Your task to perform on an android device: star an email in the gmail app Image 0: 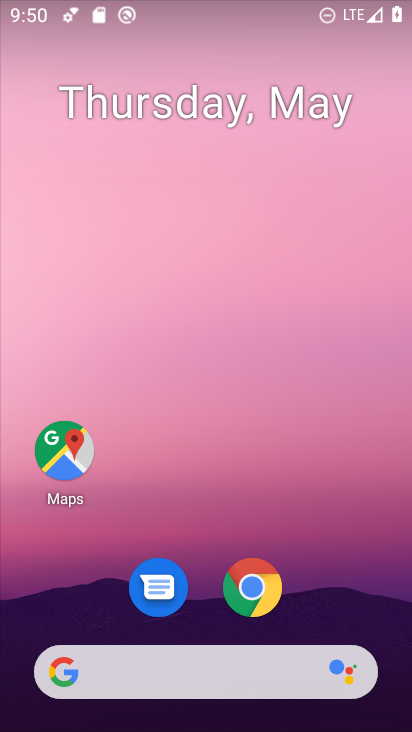
Step 0: drag from (330, 517) to (309, 12)
Your task to perform on an android device: star an email in the gmail app Image 1: 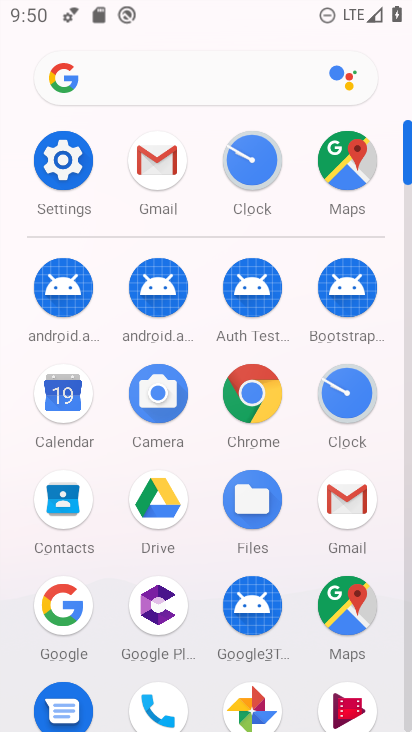
Step 1: click (159, 160)
Your task to perform on an android device: star an email in the gmail app Image 2: 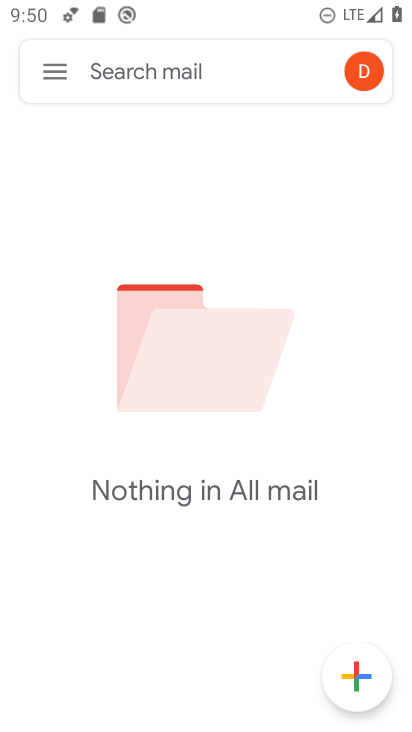
Step 2: task complete